Your task to perform on an android device: Turn off the flashlight Image 0: 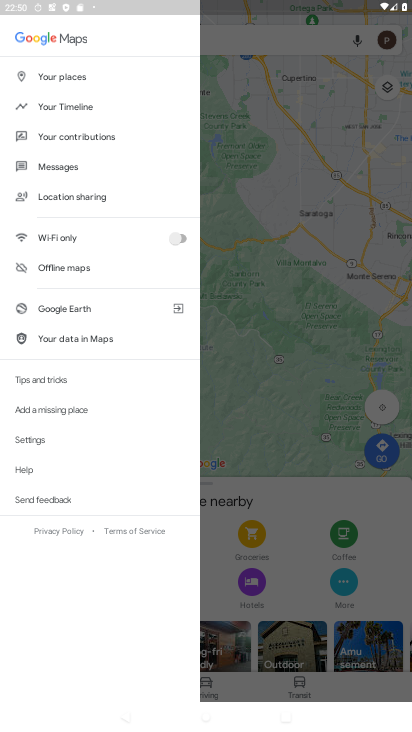
Step 0: press home button
Your task to perform on an android device: Turn off the flashlight Image 1: 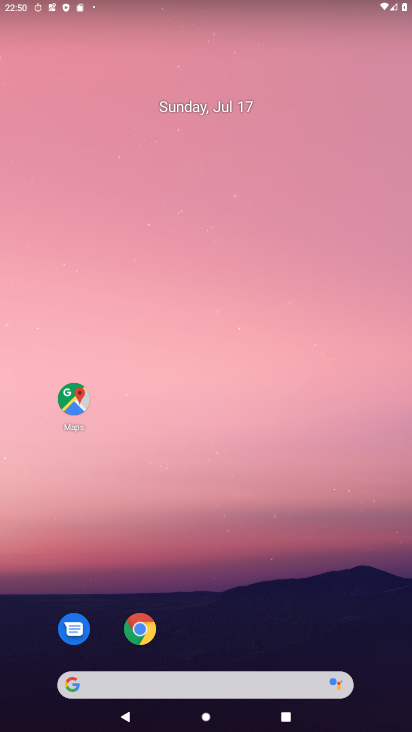
Step 1: drag from (235, 725) to (232, 178)
Your task to perform on an android device: Turn off the flashlight Image 2: 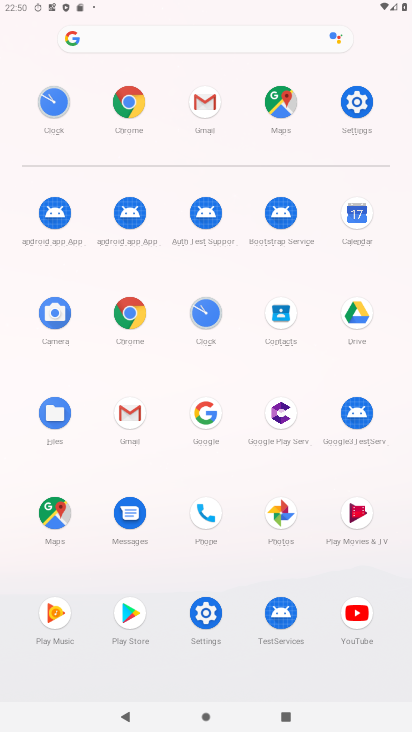
Step 2: click (356, 106)
Your task to perform on an android device: Turn off the flashlight Image 3: 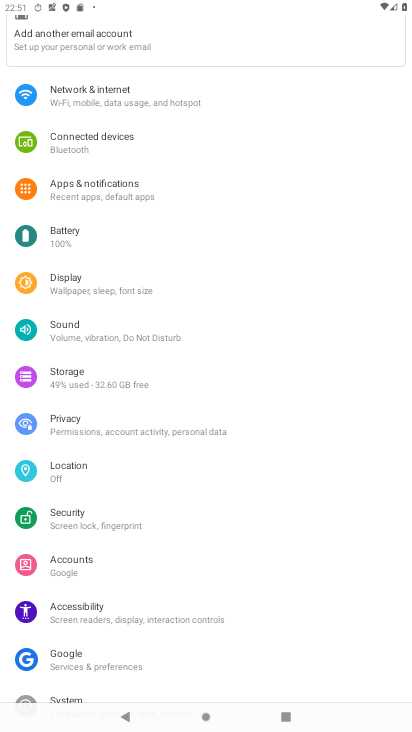
Step 3: task complete